Your task to perform on an android device: allow notifications from all sites in the chrome app Image 0: 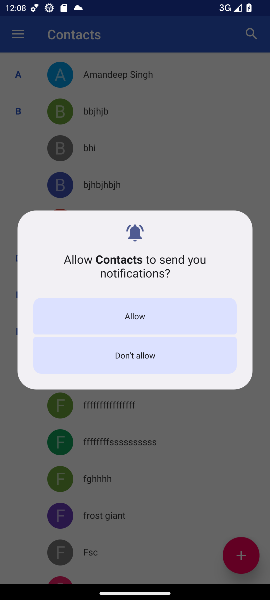
Step 0: press home button
Your task to perform on an android device: allow notifications from all sites in the chrome app Image 1: 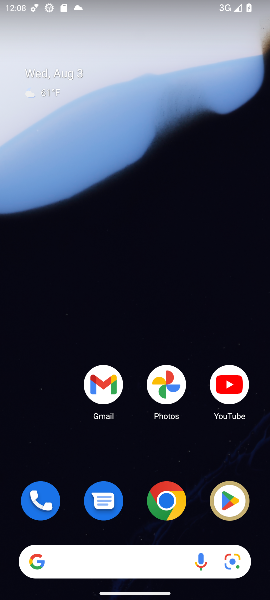
Step 1: click (171, 493)
Your task to perform on an android device: allow notifications from all sites in the chrome app Image 2: 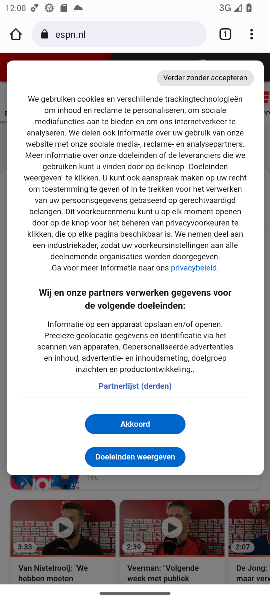
Step 2: click (246, 38)
Your task to perform on an android device: allow notifications from all sites in the chrome app Image 3: 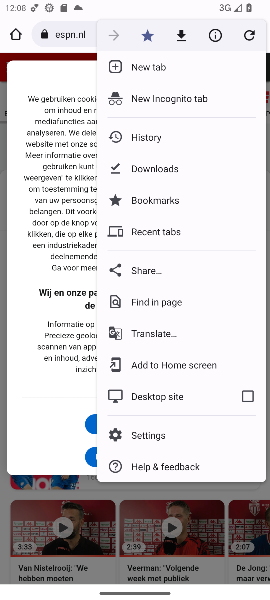
Step 3: click (143, 437)
Your task to perform on an android device: allow notifications from all sites in the chrome app Image 4: 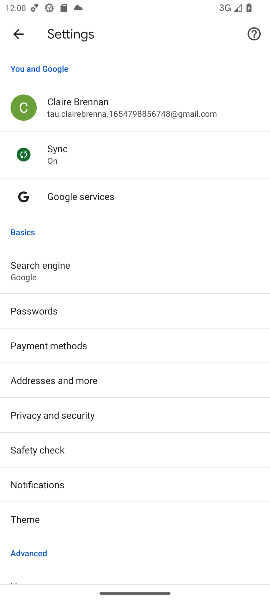
Step 4: click (68, 481)
Your task to perform on an android device: allow notifications from all sites in the chrome app Image 5: 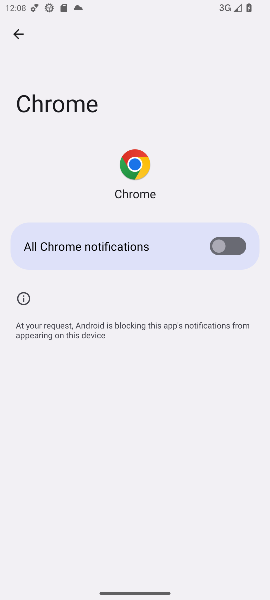
Step 5: click (237, 241)
Your task to perform on an android device: allow notifications from all sites in the chrome app Image 6: 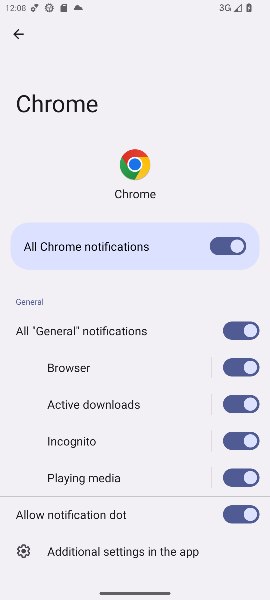
Step 6: task complete